Your task to perform on an android device: add a contact in the contacts app Image 0: 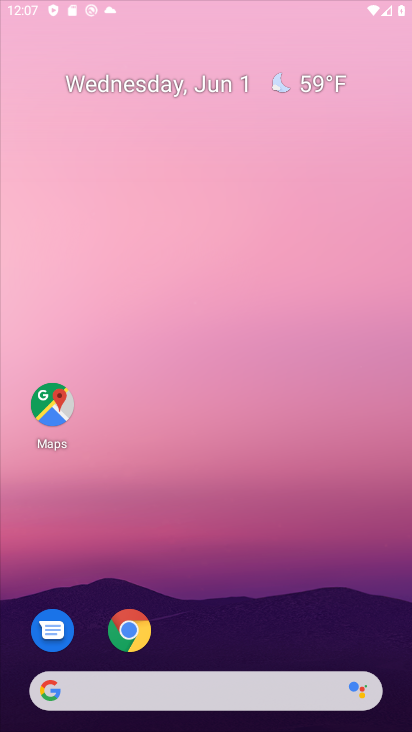
Step 0: drag from (244, 635) to (154, 16)
Your task to perform on an android device: add a contact in the contacts app Image 1: 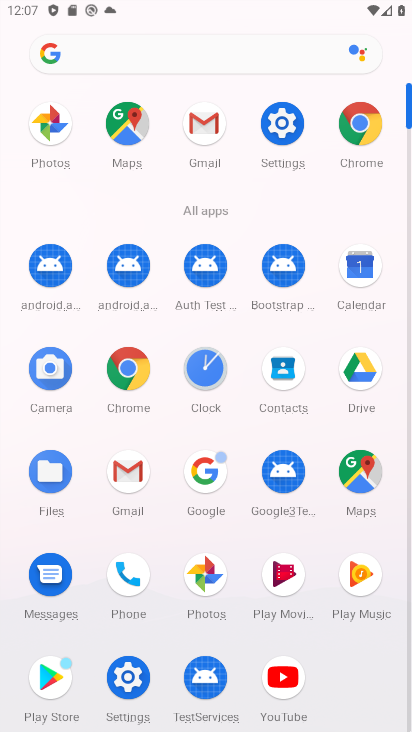
Step 1: click (131, 566)
Your task to perform on an android device: add a contact in the contacts app Image 2: 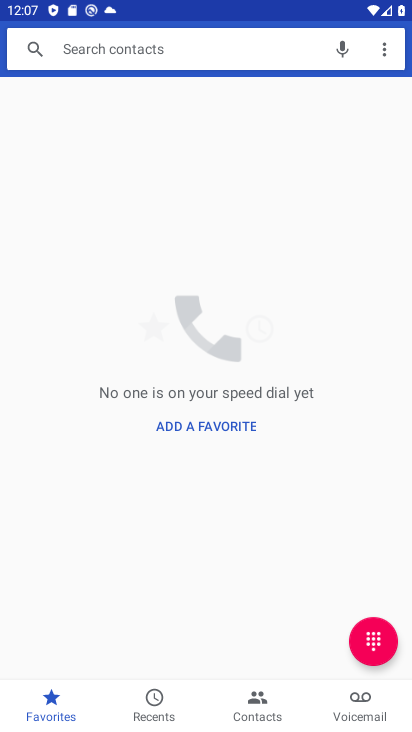
Step 2: click (185, 417)
Your task to perform on an android device: add a contact in the contacts app Image 3: 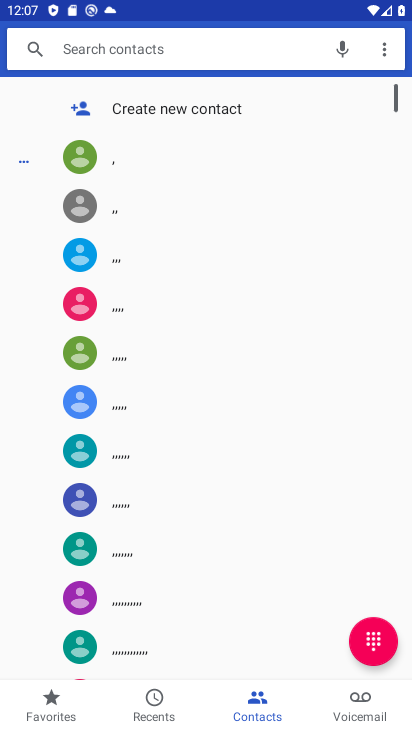
Step 3: click (194, 94)
Your task to perform on an android device: add a contact in the contacts app Image 4: 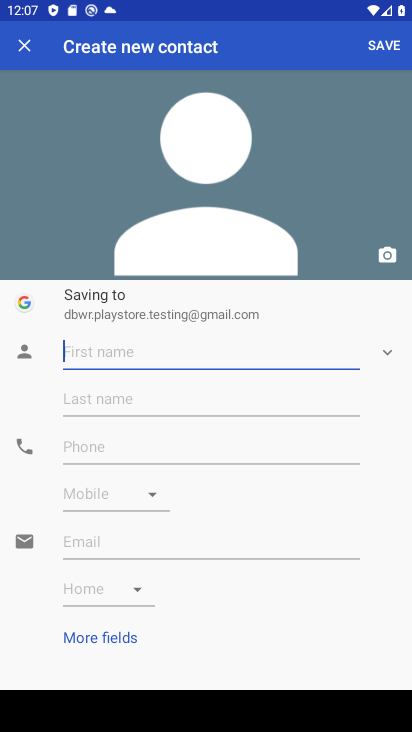
Step 4: click (141, 337)
Your task to perform on an android device: add a contact in the contacts app Image 5: 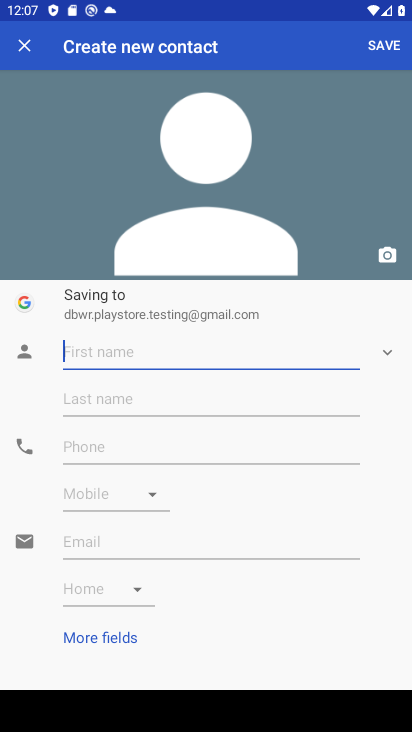
Step 5: type "4545454554554545"
Your task to perform on an android device: add a contact in the contacts app Image 6: 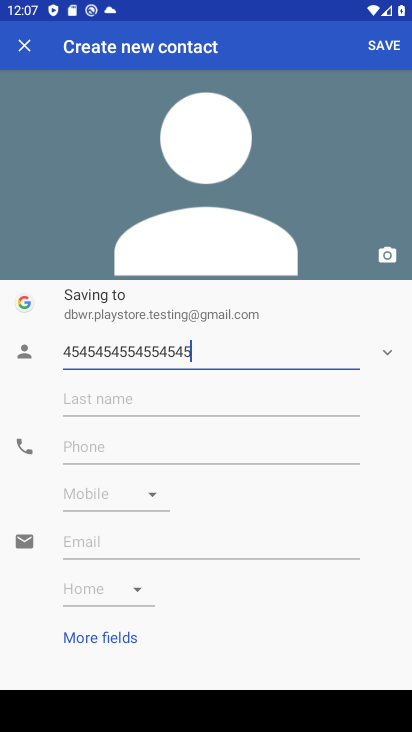
Step 6: click (162, 456)
Your task to perform on an android device: add a contact in the contacts app Image 7: 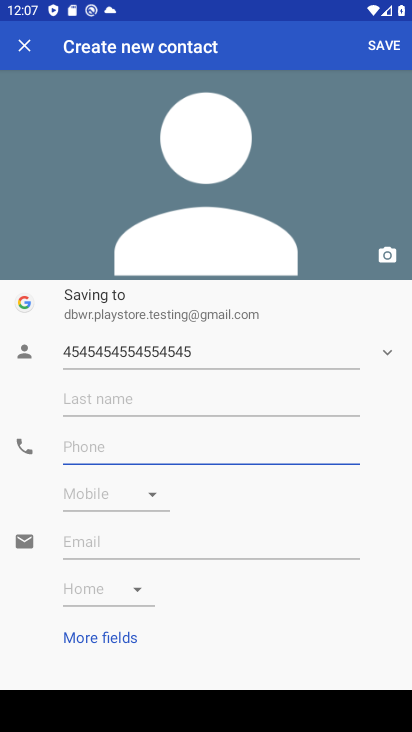
Step 7: type "34567"
Your task to perform on an android device: add a contact in the contacts app Image 8: 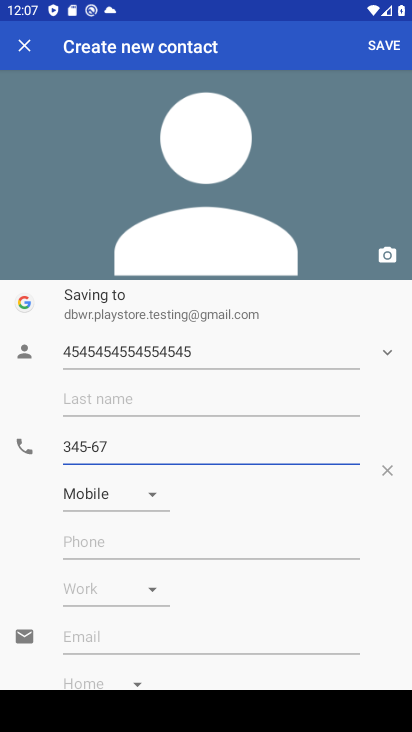
Step 8: click (383, 33)
Your task to perform on an android device: add a contact in the contacts app Image 9: 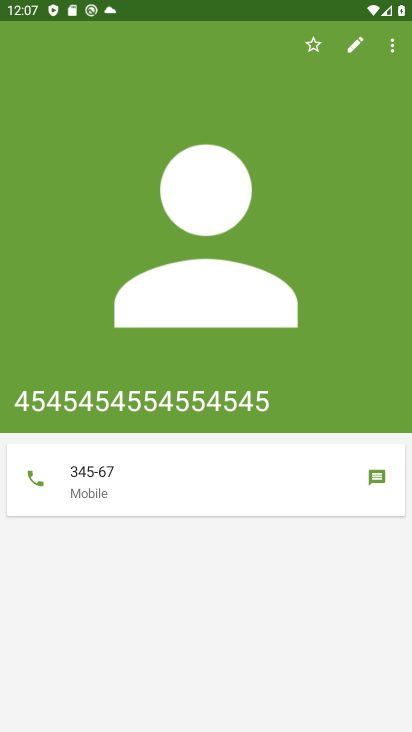
Step 9: task complete